Your task to perform on an android device: check google app version Image 0: 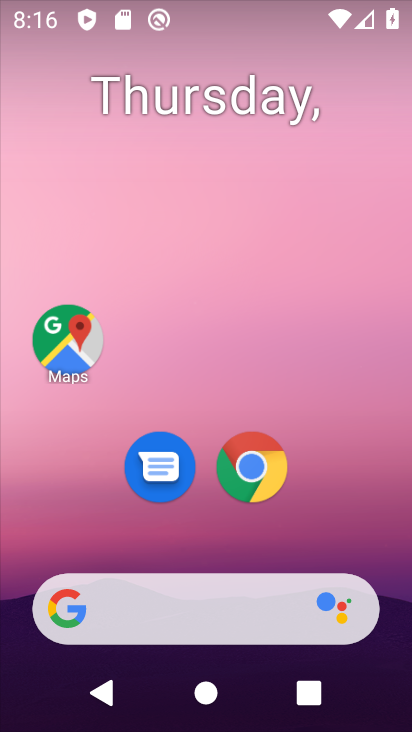
Step 0: drag from (281, 411) to (309, 88)
Your task to perform on an android device: check google app version Image 1: 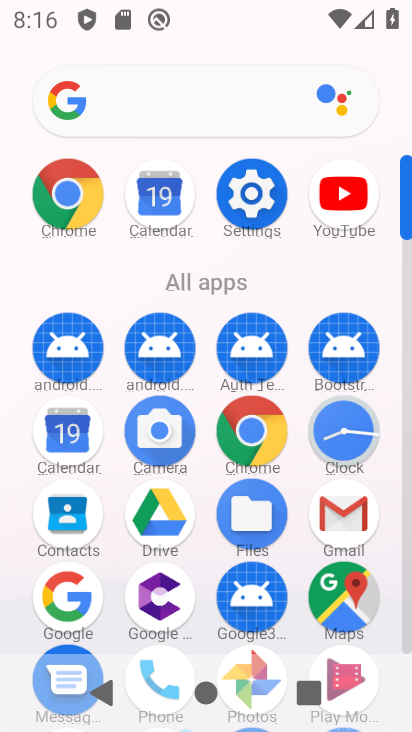
Step 1: click (56, 613)
Your task to perform on an android device: check google app version Image 2: 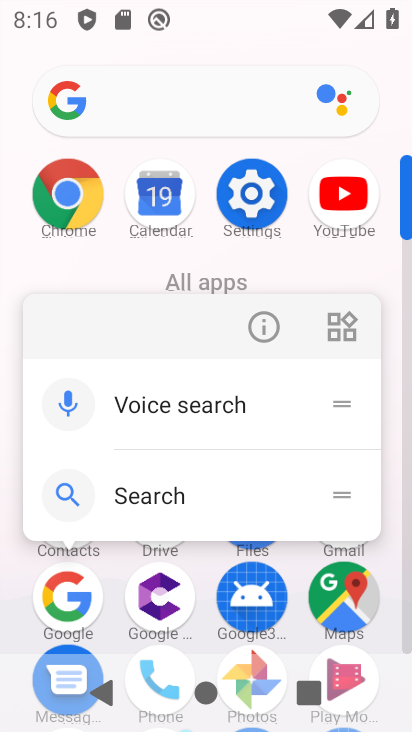
Step 2: click (276, 328)
Your task to perform on an android device: check google app version Image 3: 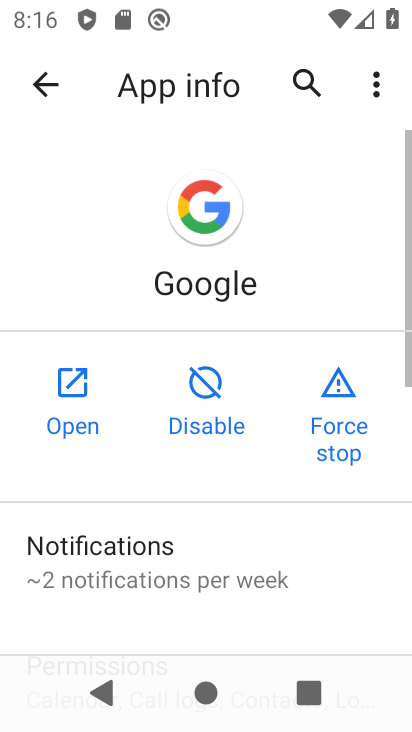
Step 3: drag from (99, 586) to (275, 82)
Your task to perform on an android device: check google app version Image 4: 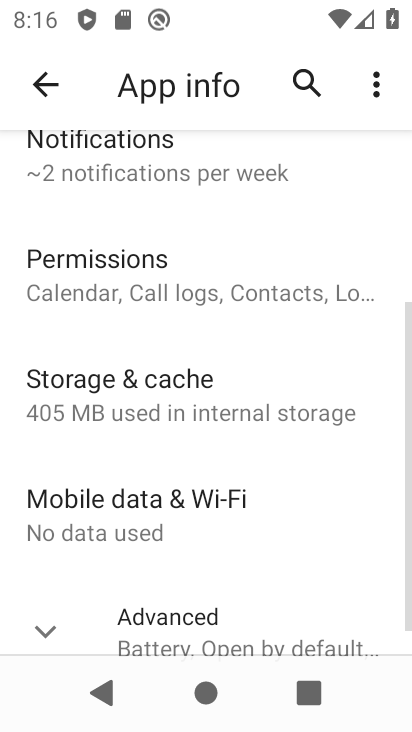
Step 4: drag from (228, 567) to (290, 106)
Your task to perform on an android device: check google app version Image 5: 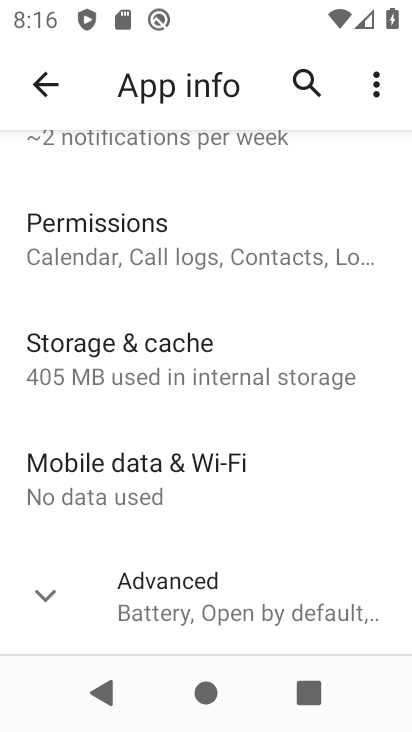
Step 5: click (213, 624)
Your task to perform on an android device: check google app version Image 6: 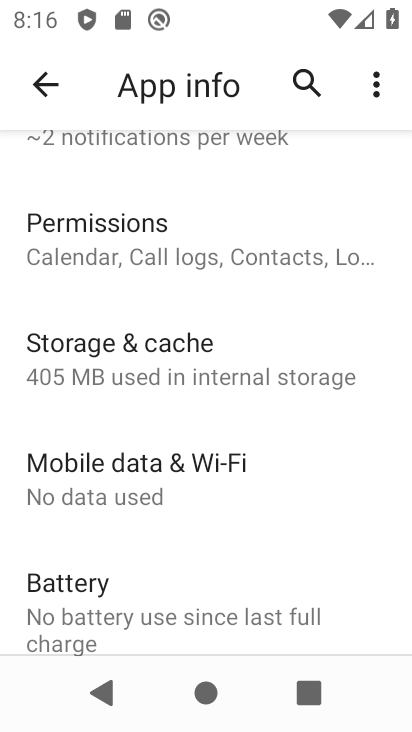
Step 6: task complete